Your task to perform on an android device: Go to Wikipedia Image 0: 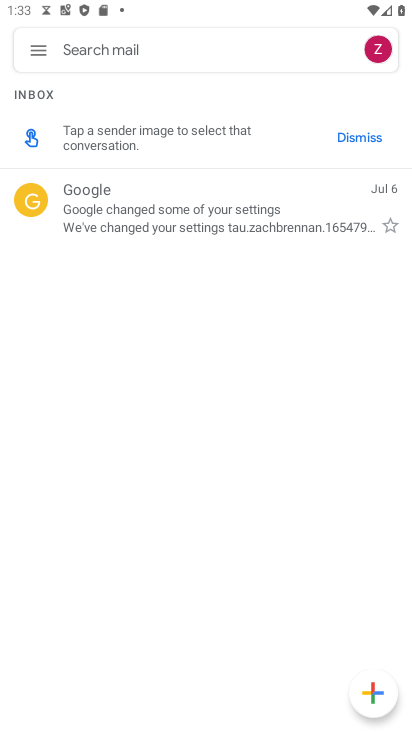
Step 0: press home button
Your task to perform on an android device: Go to Wikipedia Image 1: 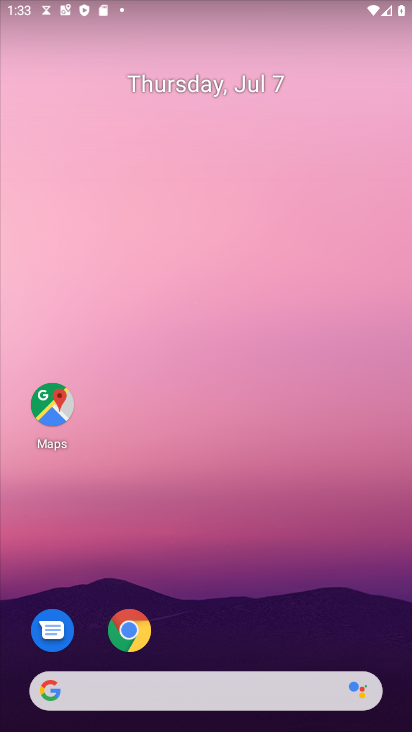
Step 1: click (142, 631)
Your task to perform on an android device: Go to Wikipedia Image 2: 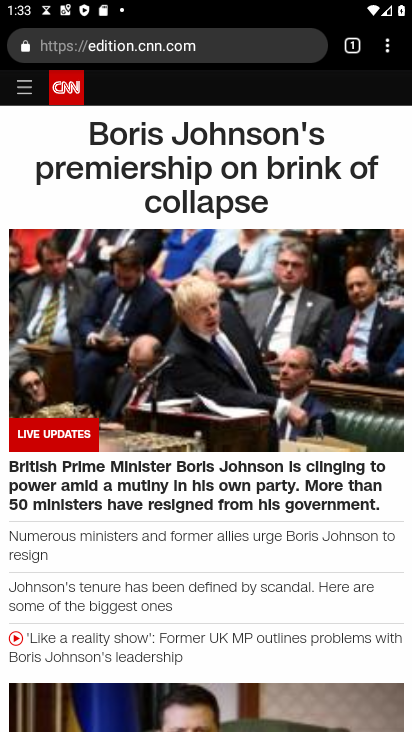
Step 2: click (350, 54)
Your task to perform on an android device: Go to Wikipedia Image 3: 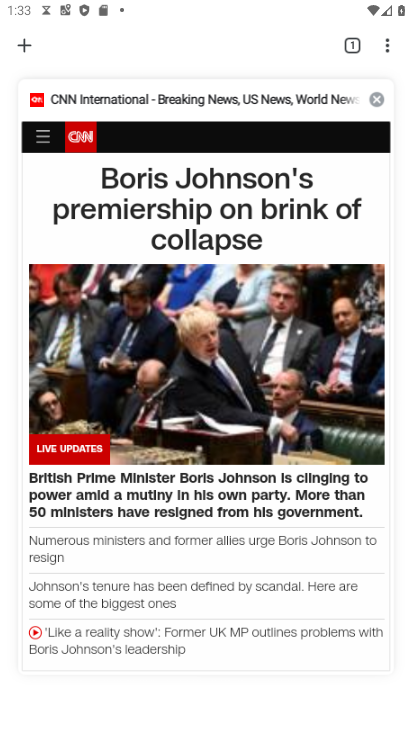
Step 3: click (26, 38)
Your task to perform on an android device: Go to Wikipedia Image 4: 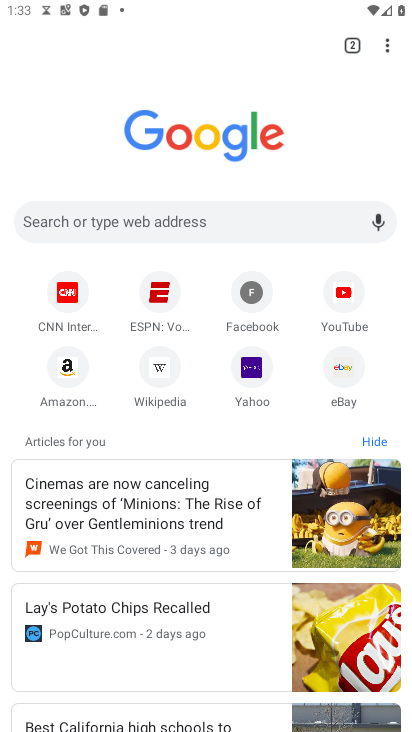
Step 4: click (167, 376)
Your task to perform on an android device: Go to Wikipedia Image 5: 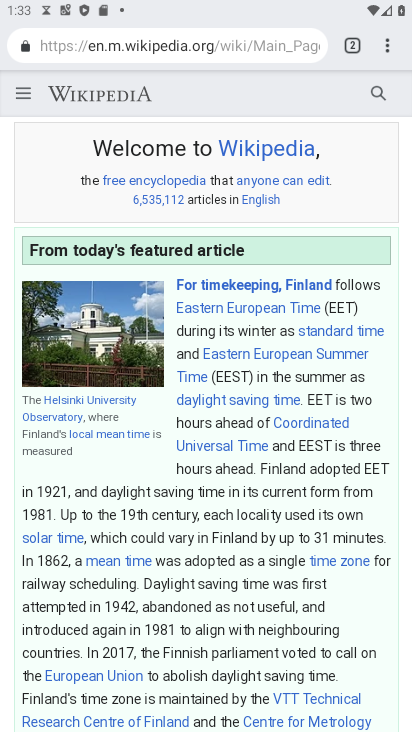
Step 5: task complete